Your task to perform on an android device: turn off translation in the chrome app Image 0: 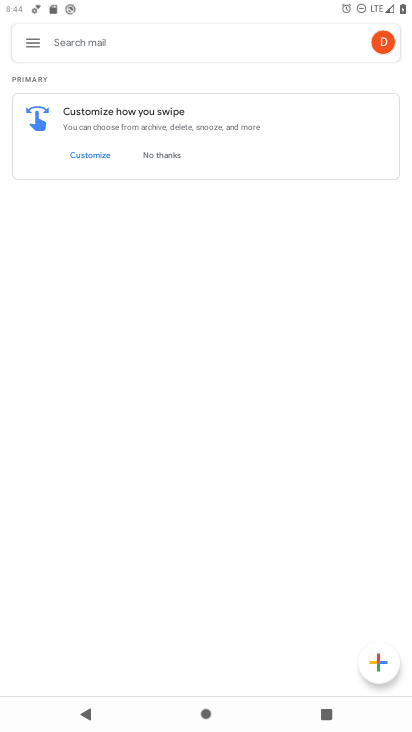
Step 0: press home button
Your task to perform on an android device: turn off translation in the chrome app Image 1: 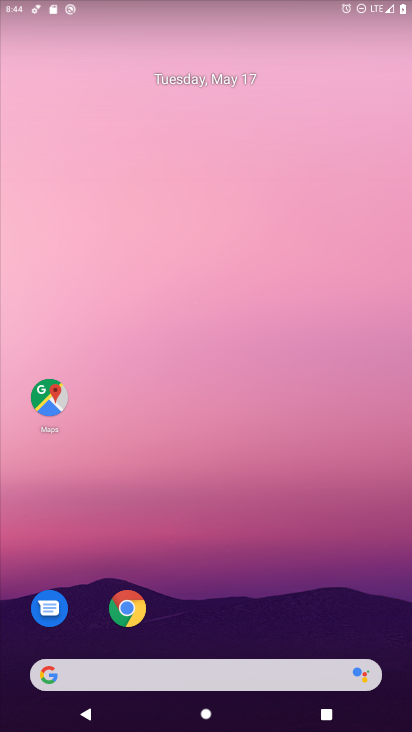
Step 1: click (133, 599)
Your task to perform on an android device: turn off translation in the chrome app Image 2: 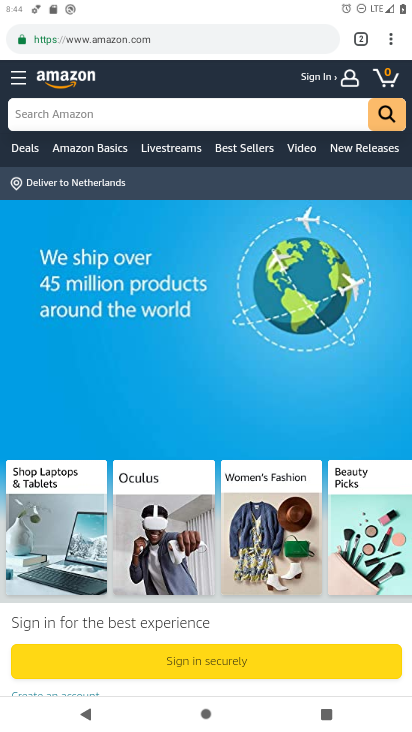
Step 2: click (388, 37)
Your task to perform on an android device: turn off translation in the chrome app Image 3: 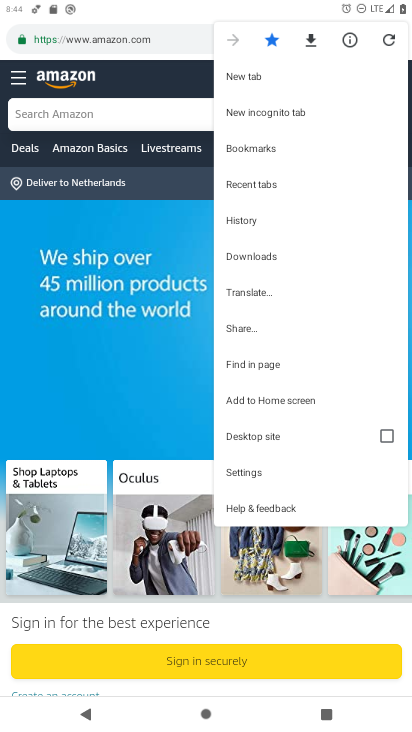
Step 3: click (258, 479)
Your task to perform on an android device: turn off translation in the chrome app Image 4: 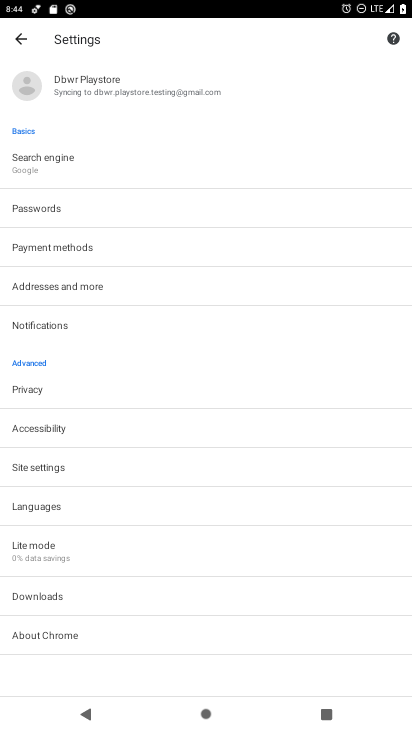
Step 4: click (73, 496)
Your task to perform on an android device: turn off translation in the chrome app Image 5: 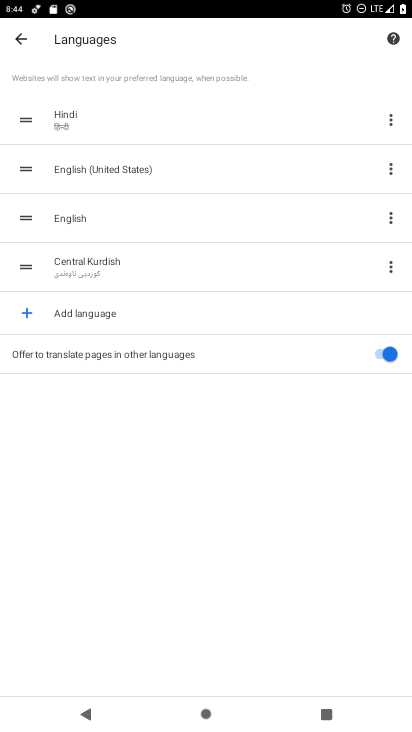
Step 5: click (380, 355)
Your task to perform on an android device: turn off translation in the chrome app Image 6: 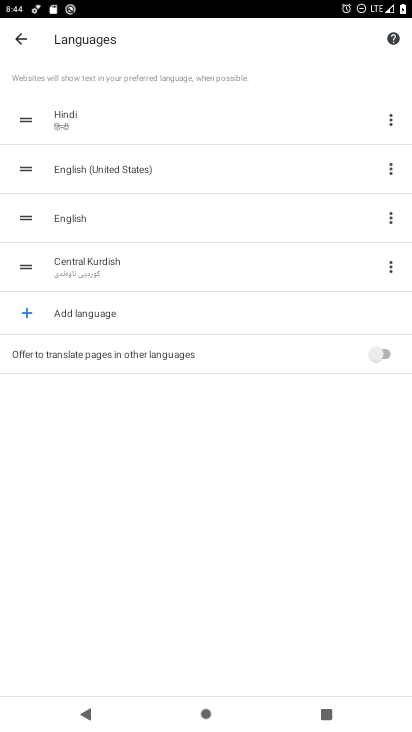
Step 6: task complete